Your task to perform on an android device: Open internet settings Image 0: 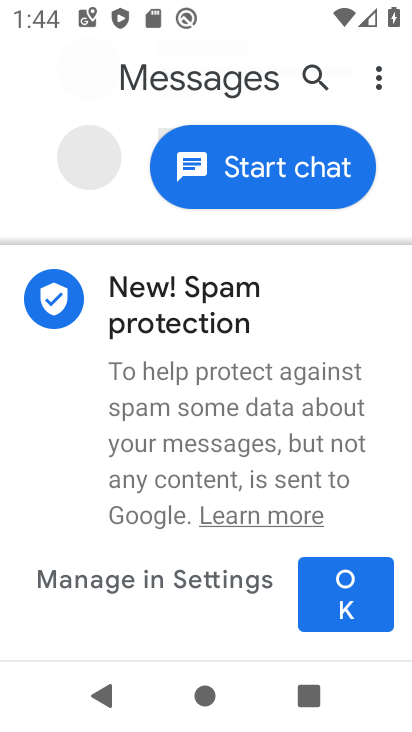
Step 0: press home button
Your task to perform on an android device: Open internet settings Image 1: 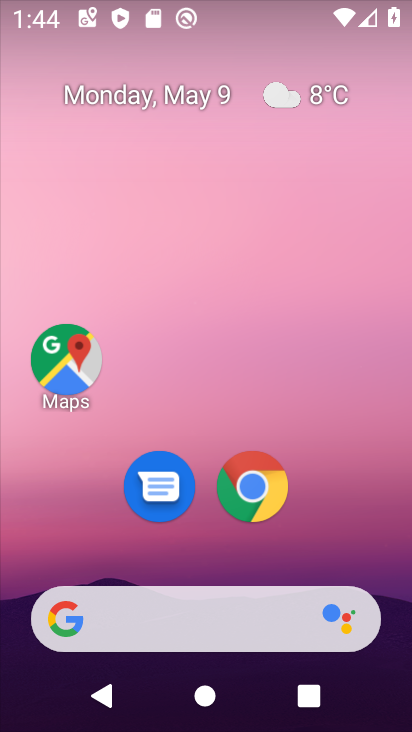
Step 1: drag from (299, 452) to (408, 181)
Your task to perform on an android device: Open internet settings Image 2: 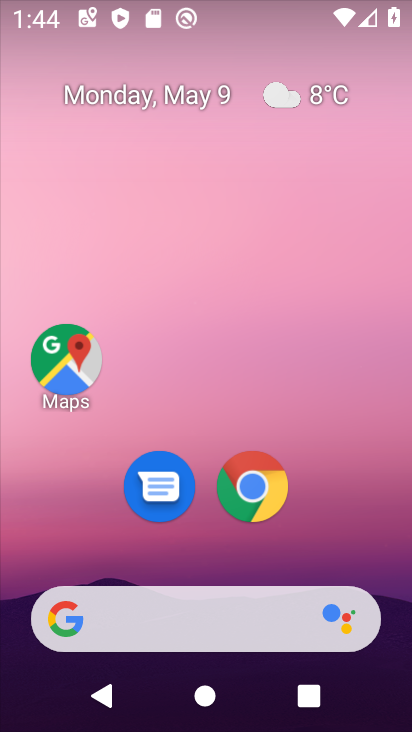
Step 2: drag from (185, 531) to (373, 47)
Your task to perform on an android device: Open internet settings Image 3: 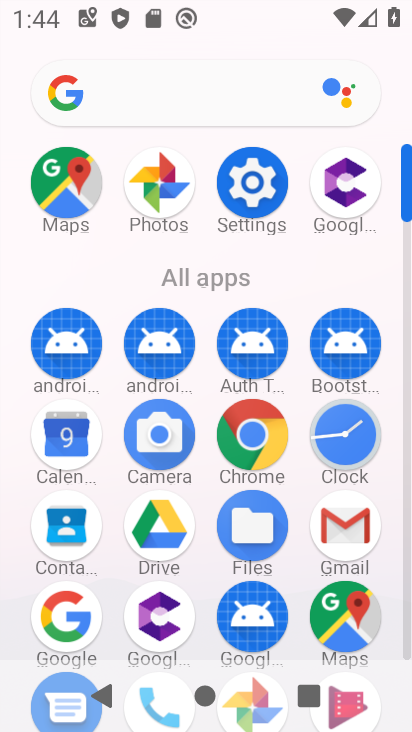
Step 3: click (257, 180)
Your task to perform on an android device: Open internet settings Image 4: 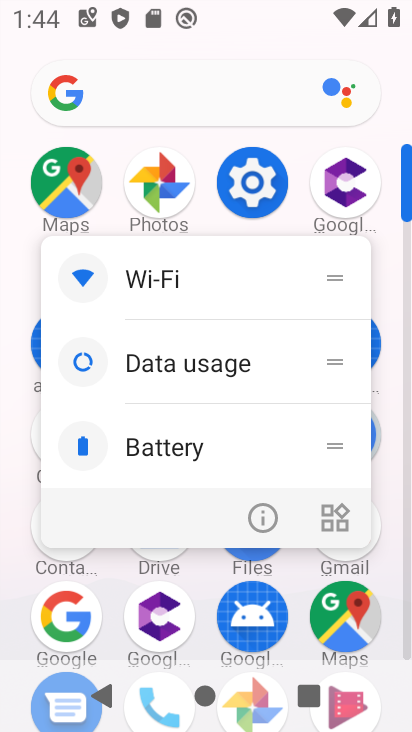
Step 4: click (208, 360)
Your task to perform on an android device: Open internet settings Image 5: 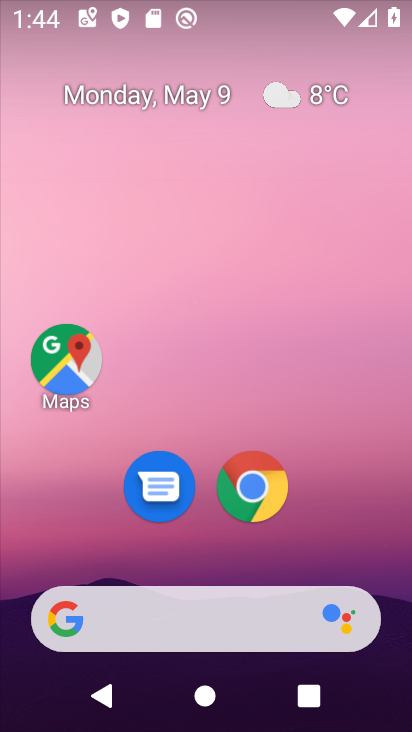
Step 5: drag from (203, 548) to (412, 106)
Your task to perform on an android device: Open internet settings Image 6: 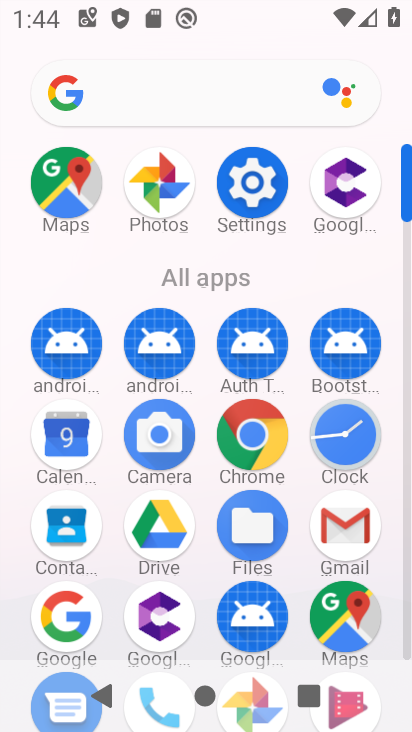
Step 6: click (262, 196)
Your task to perform on an android device: Open internet settings Image 7: 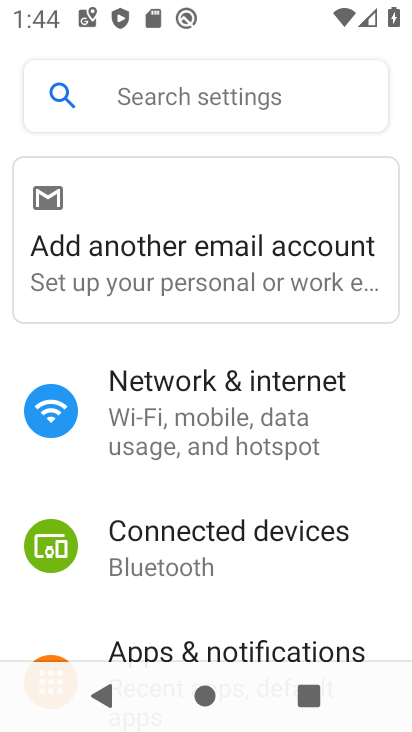
Step 7: click (196, 404)
Your task to perform on an android device: Open internet settings Image 8: 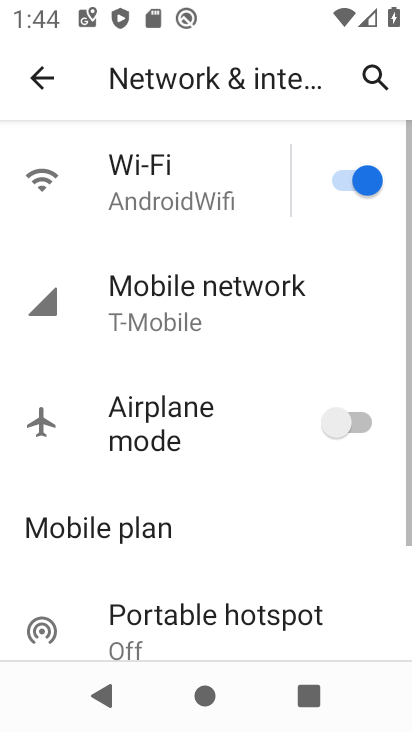
Step 8: drag from (170, 509) to (267, 152)
Your task to perform on an android device: Open internet settings Image 9: 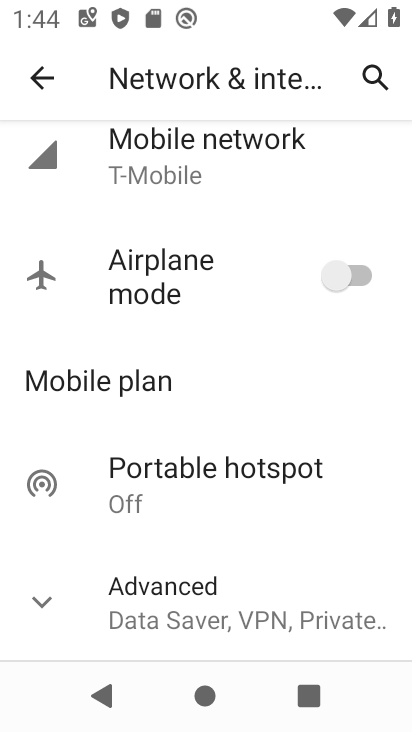
Step 9: click (247, 152)
Your task to perform on an android device: Open internet settings Image 10: 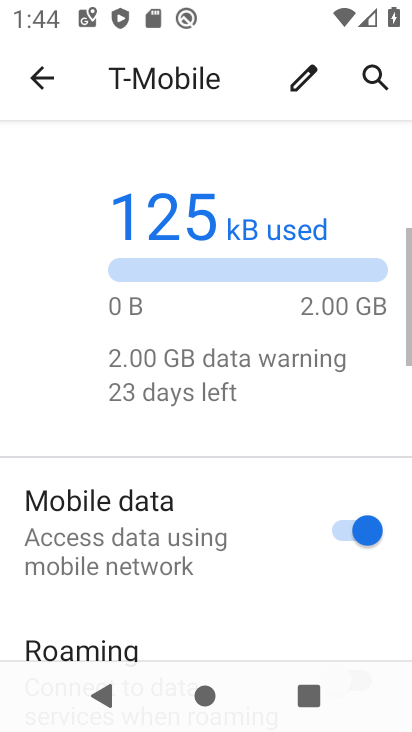
Step 10: task complete